Your task to perform on an android device: Go to Wikipedia Image 0: 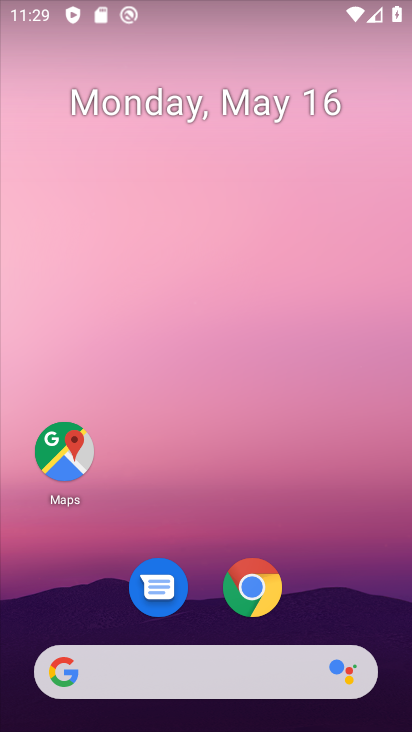
Step 0: drag from (380, 643) to (235, 106)
Your task to perform on an android device: Go to Wikipedia Image 1: 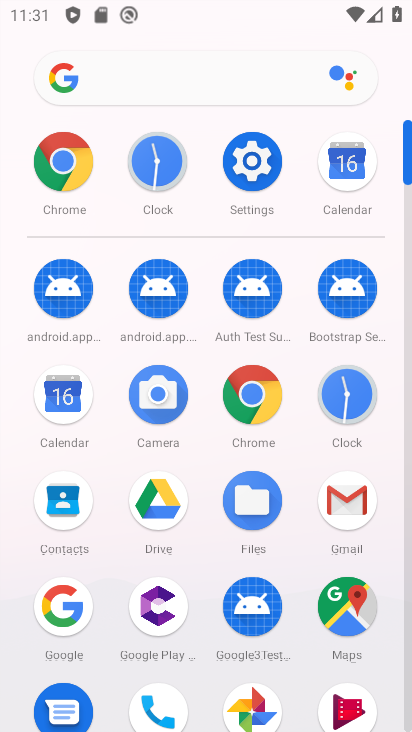
Step 1: click (239, 412)
Your task to perform on an android device: Go to Wikipedia Image 2: 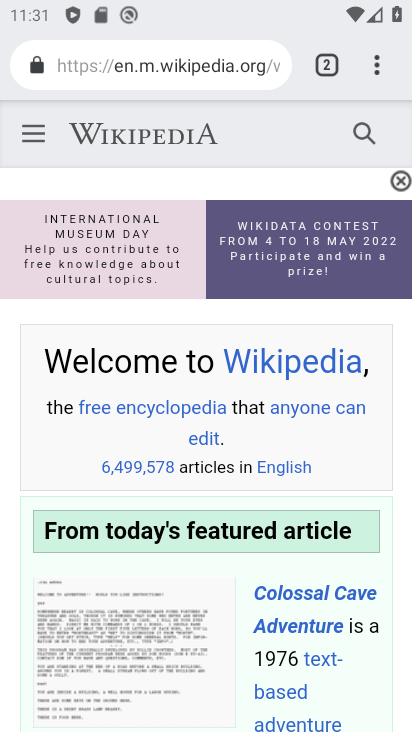
Step 2: task complete